Your task to perform on an android device: Go to location settings Image 0: 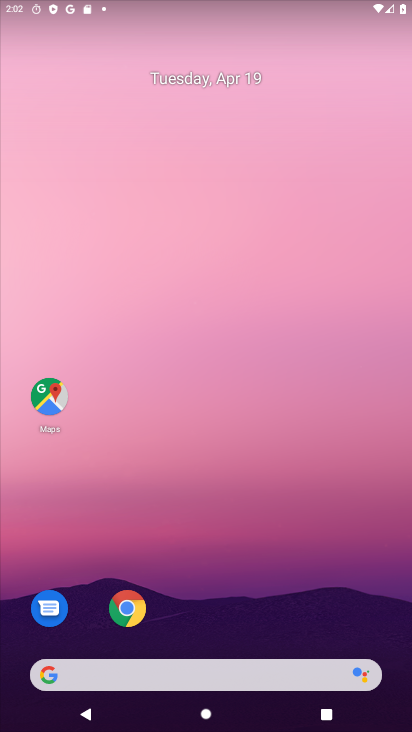
Step 0: drag from (208, 603) to (409, 85)
Your task to perform on an android device: Go to location settings Image 1: 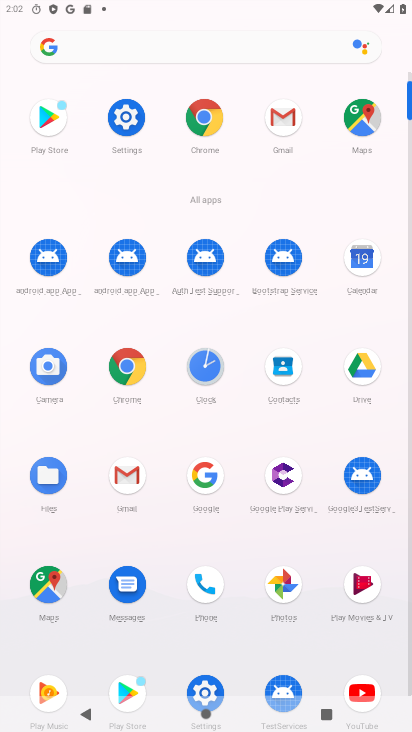
Step 1: click (203, 470)
Your task to perform on an android device: Go to location settings Image 2: 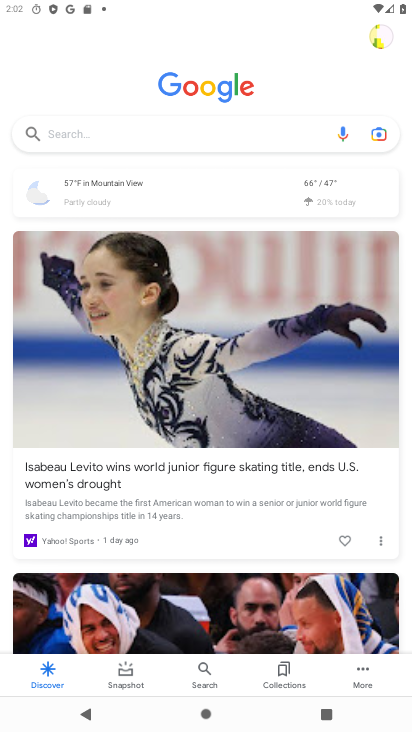
Step 2: press home button
Your task to perform on an android device: Go to location settings Image 3: 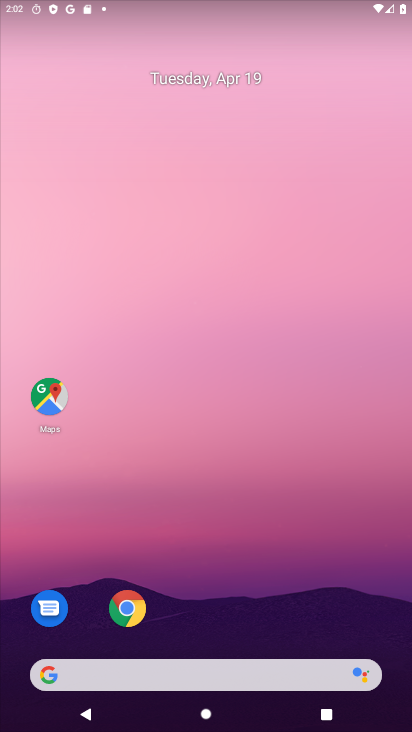
Step 3: drag from (257, 518) to (307, 95)
Your task to perform on an android device: Go to location settings Image 4: 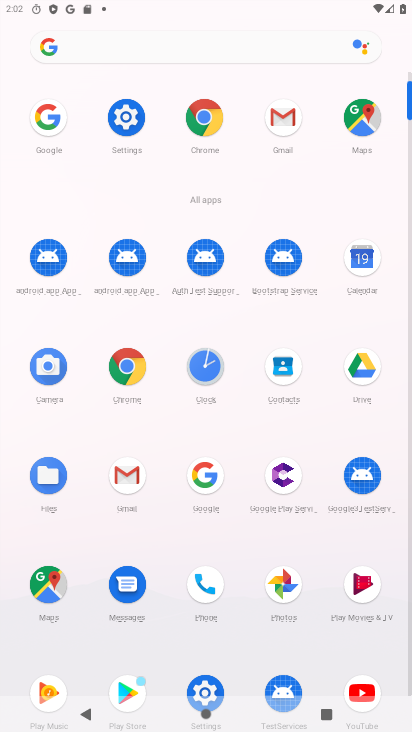
Step 4: click (142, 113)
Your task to perform on an android device: Go to location settings Image 5: 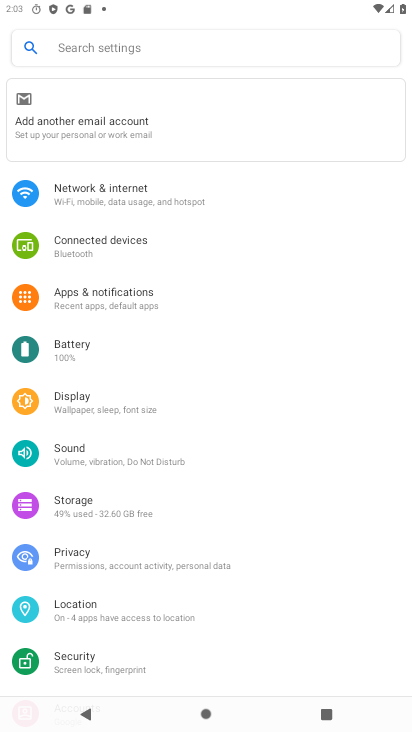
Step 5: click (95, 611)
Your task to perform on an android device: Go to location settings Image 6: 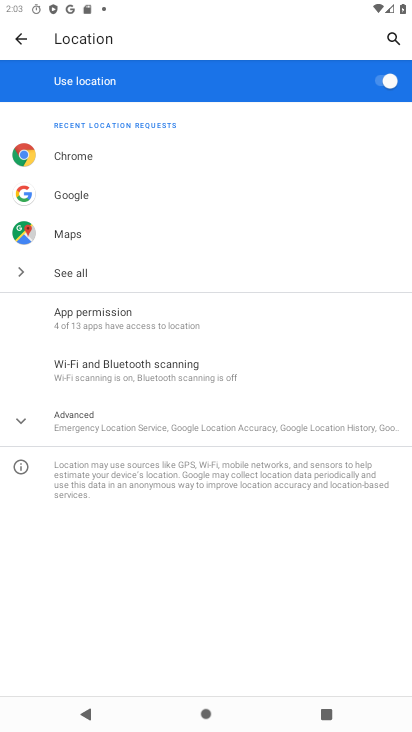
Step 6: task complete